Your task to perform on an android device: all mails in gmail Image 0: 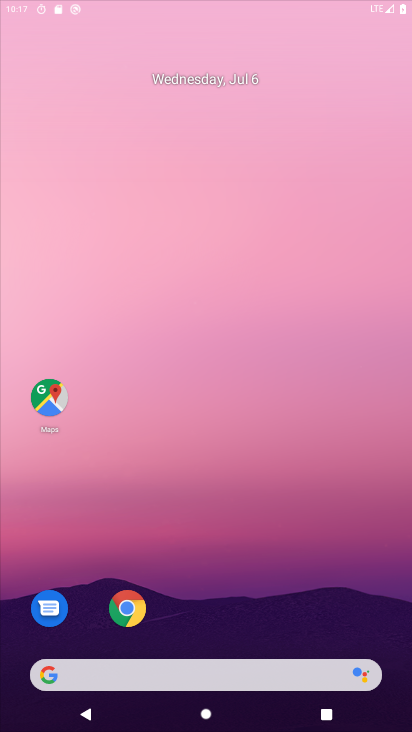
Step 0: click (251, 209)
Your task to perform on an android device: all mails in gmail Image 1: 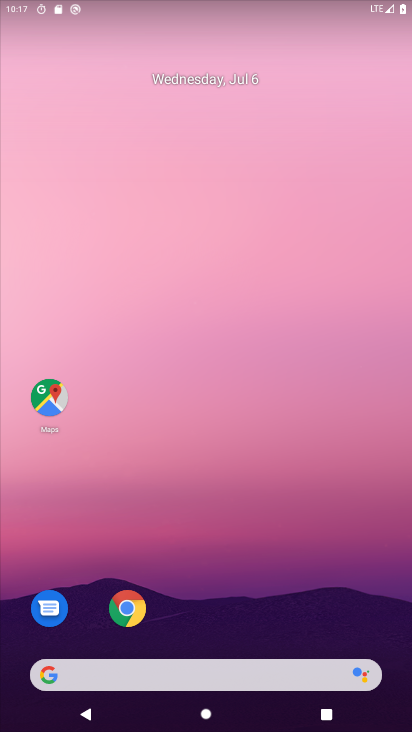
Step 1: drag from (228, 640) to (407, 414)
Your task to perform on an android device: all mails in gmail Image 2: 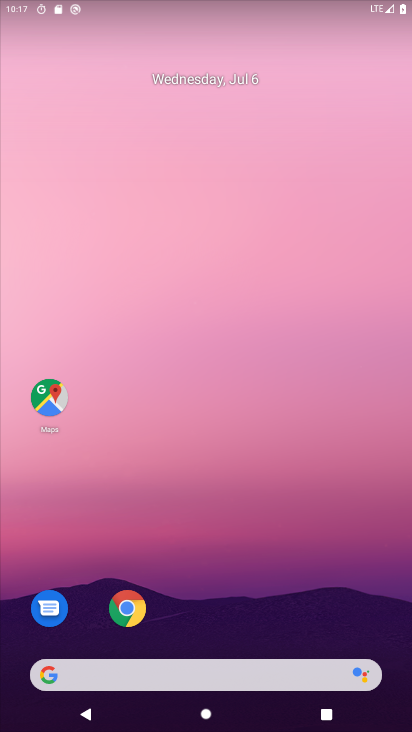
Step 2: drag from (199, 606) to (288, 4)
Your task to perform on an android device: all mails in gmail Image 3: 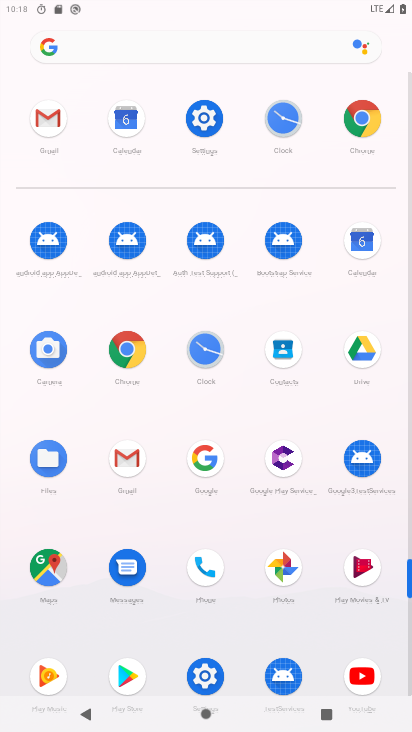
Step 3: click (123, 476)
Your task to perform on an android device: all mails in gmail Image 4: 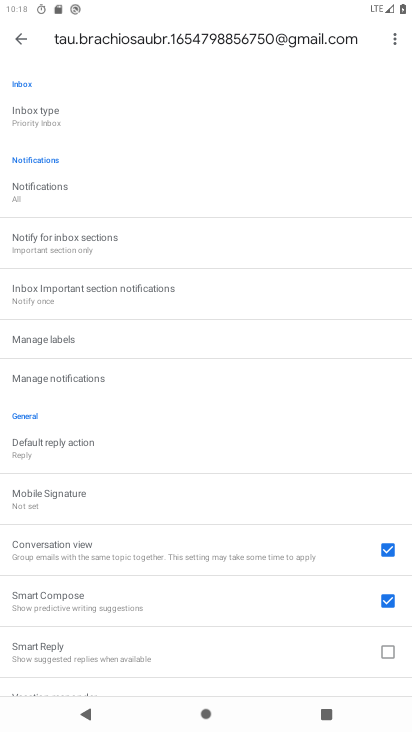
Step 4: click (15, 47)
Your task to perform on an android device: all mails in gmail Image 5: 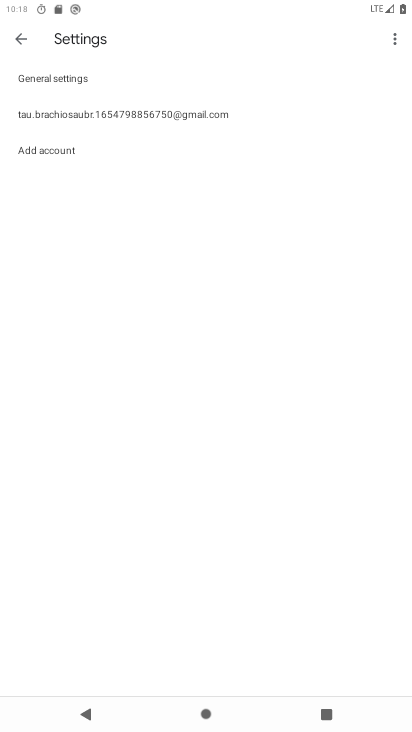
Step 5: click (18, 35)
Your task to perform on an android device: all mails in gmail Image 6: 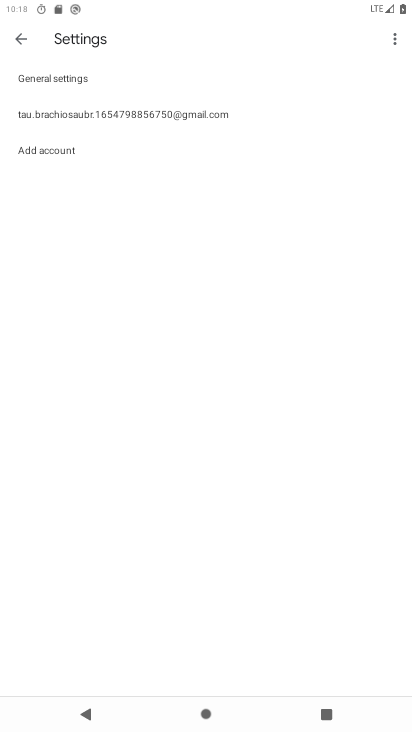
Step 6: click (20, 36)
Your task to perform on an android device: all mails in gmail Image 7: 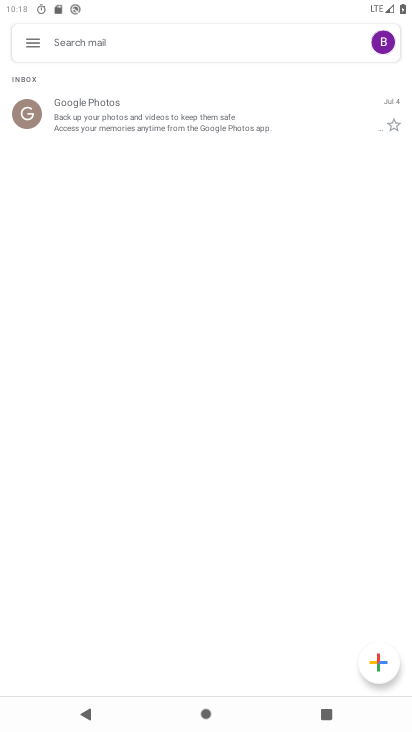
Step 7: click (21, 36)
Your task to perform on an android device: all mails in gmail Image 8: 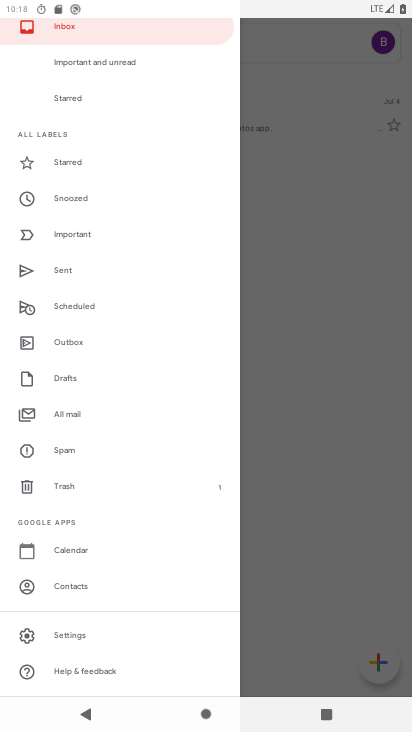
Step 8: click (72, 413)
Your task to perform on an android device: all mails in gmail Image 9: 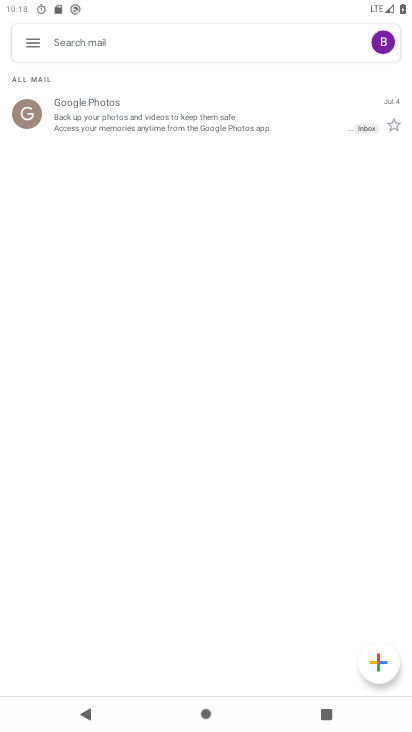
Step 9: task complete